Your task to perform on an android device: Show me popular videos on Youtube Image 0: 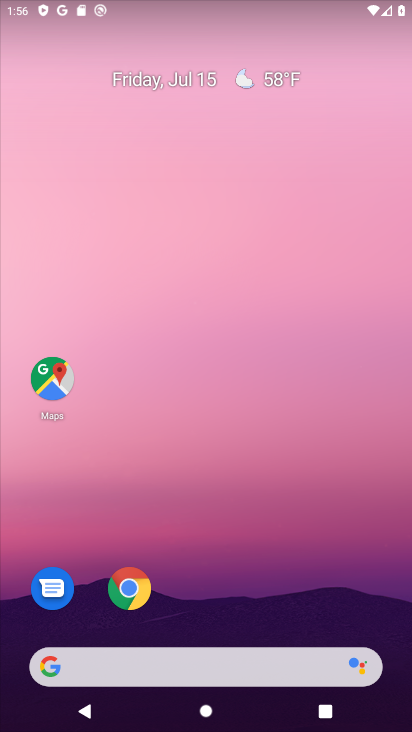
Step 0: drag from (251, 615) to (208, 206)
Your task to perform on an android device: Show me popular videos on Youtube Image 1: 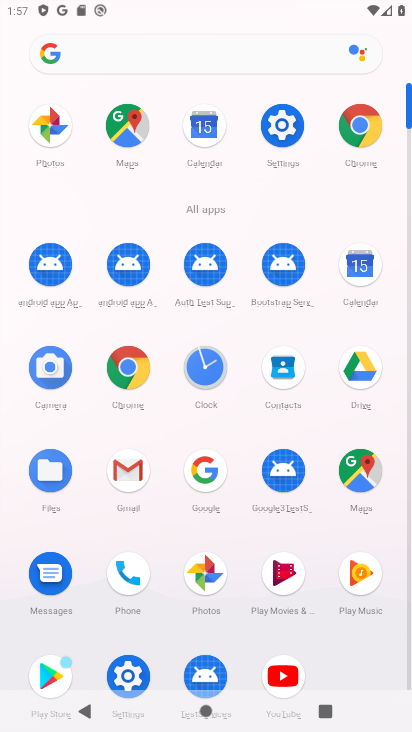
Step 1: click (270, 681)
Your task to perform on an android device: Show me popular videos on Youtube Image 2: 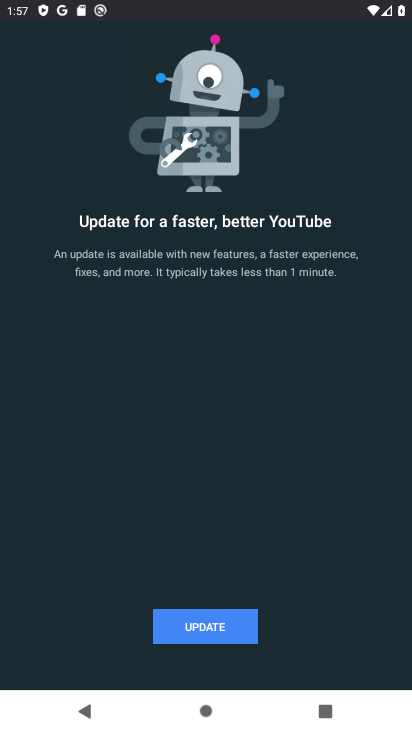
Step 2: click (176, 624)
Your task to perform on an android device: Show me popular videos on Youtube Image 3: 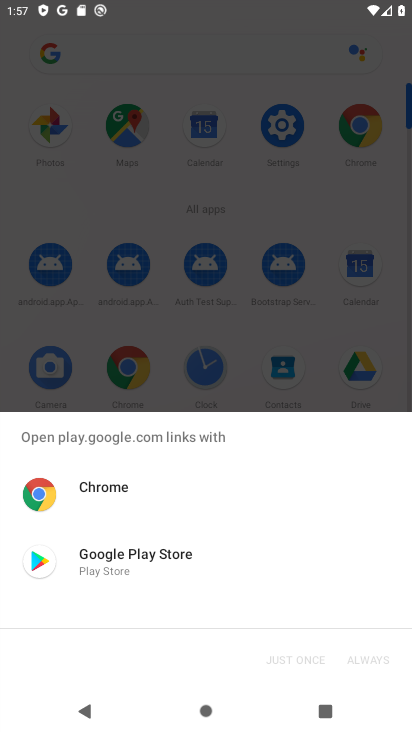
Step 3: click (146, 547)
Your task to perform on an android device: Show me popular videos on Youtube Image 4: 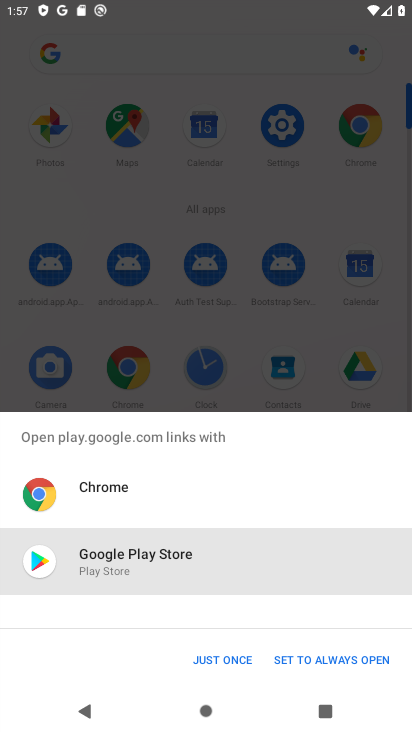
Step 4: click (222, 663)
Your task to perform on an android device: Show me popular videos on Youtube Image 5: 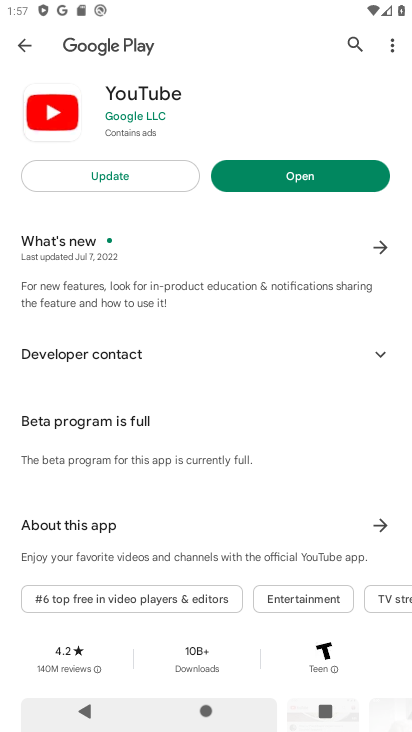
Step 5: click (122, 190)
Your task to perform on an android device: Show me popular videos on Youtube Image 6: 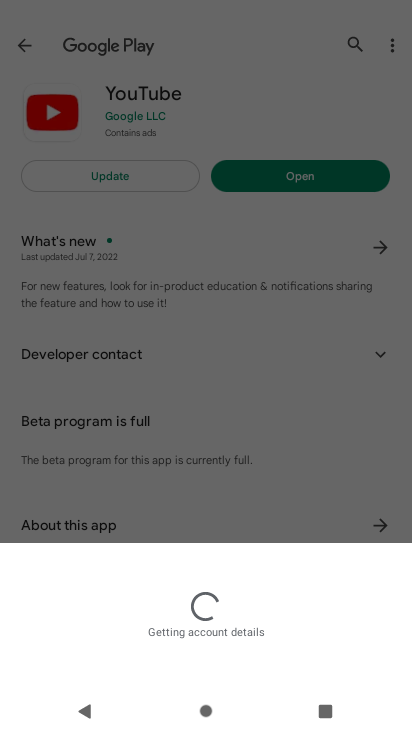
Step 6: click (162, 188)
Your task to perform on an android device: Show me popular videos on Youtube Image 7: 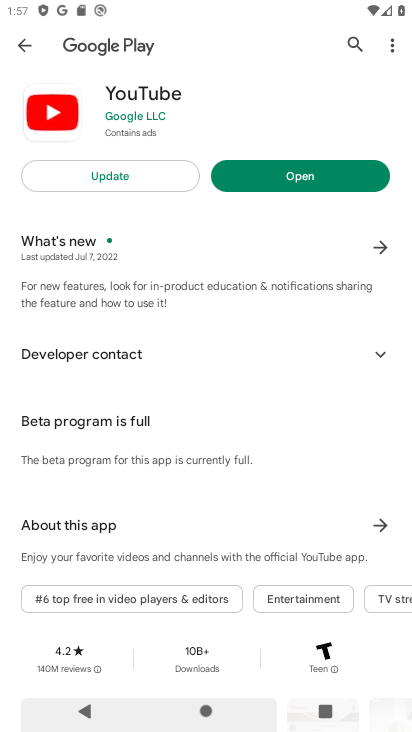
Step 7: click (144, 181)
Your task to perform on an android device: Show me popular videos on Youtube Image 8: 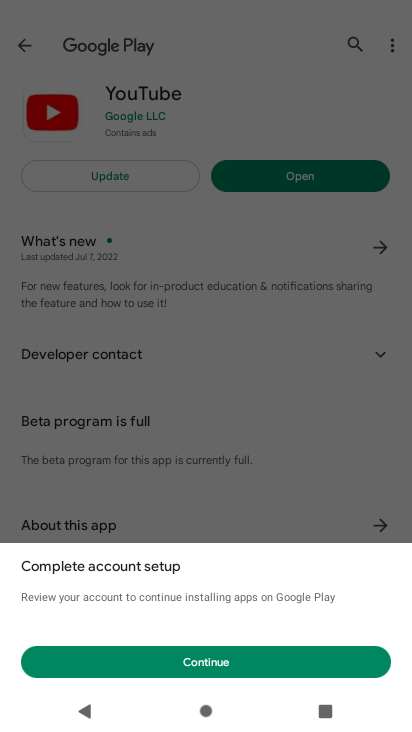
Step 8: click (222, 678)
Your task to perform on an android device: Show me popular videos on Youtube Image 9: 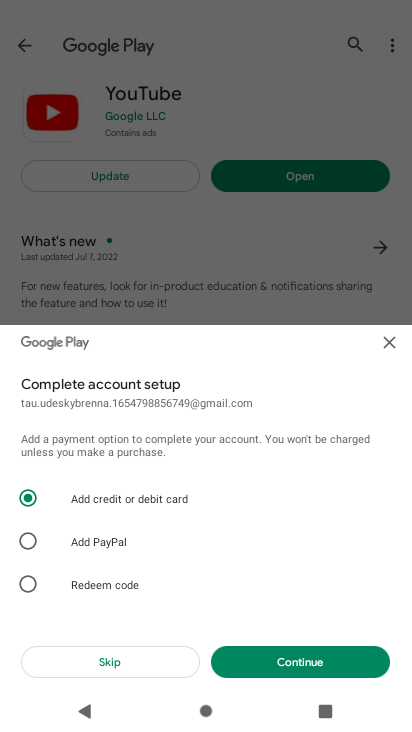
Step 9: click (148, 666)
Your task to perform on an android device: Show me popular videos on Youtube Image 10: 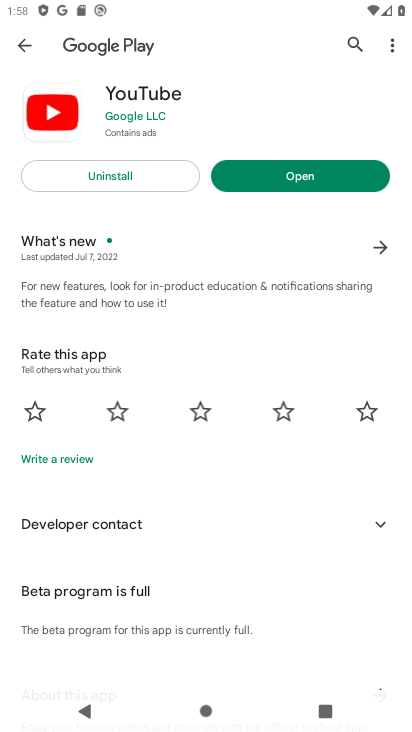
Step 10: click (253, 164)
Your task to perform on an android device: Show me popular videos on Youtube Image 11: 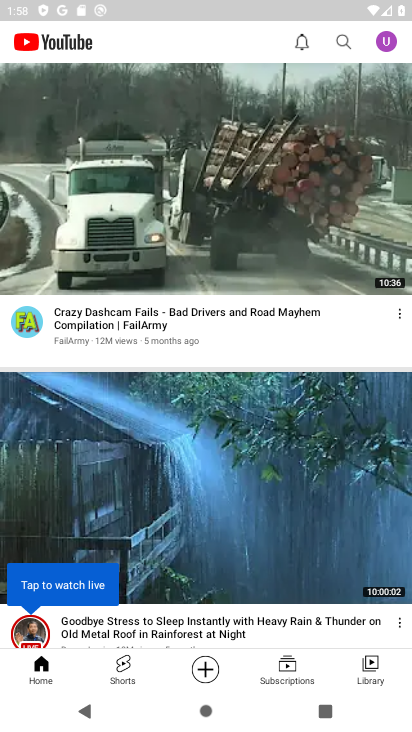
Step 11: task complete